Your task to perform on an android device: turn off improve location accuracy Image 0: 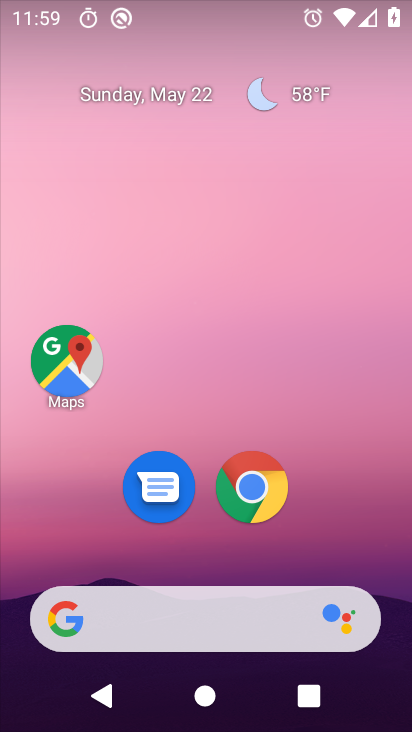
Step 0: drag from (386, 503) to (297, 99)
Your task to perform on an android device: turn off improve location accuracy Image 1: 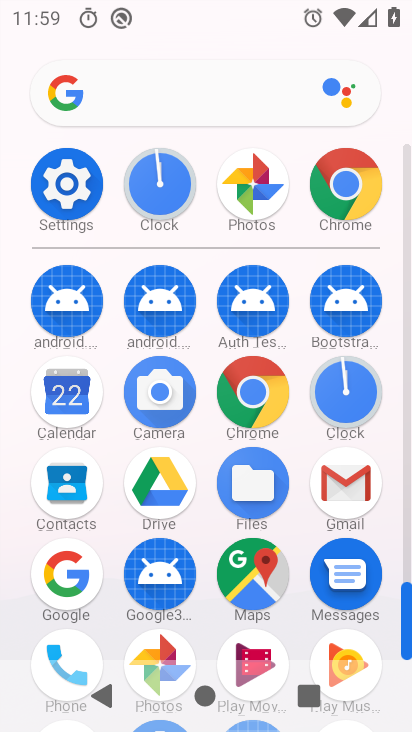
Step 1: click (57, 190)
Your task to perform on an android device: turn off improve location accuracy Image 2: 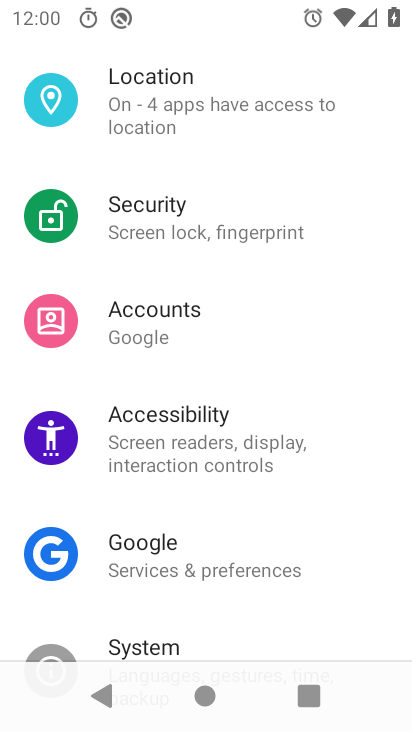
Step 2: drag from (148, 134) to (189, 480)
Your task to perform on an android device: turn off improve location accuracy Image 3: 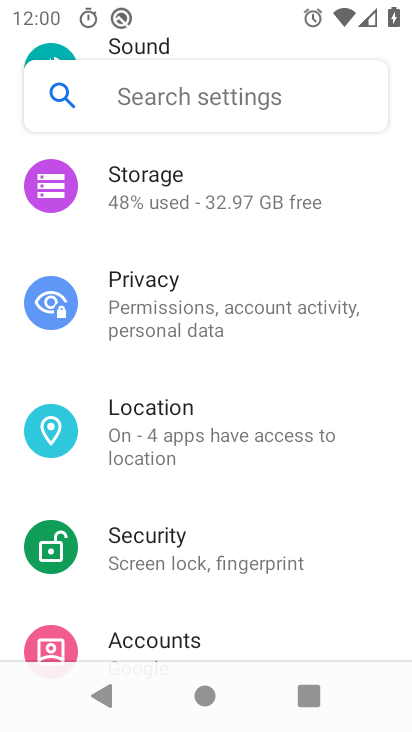
Step 3: drag from (171, 225) to (171, 554)
Your task to perform on an android device: turn off improve location accuracy Image 4: 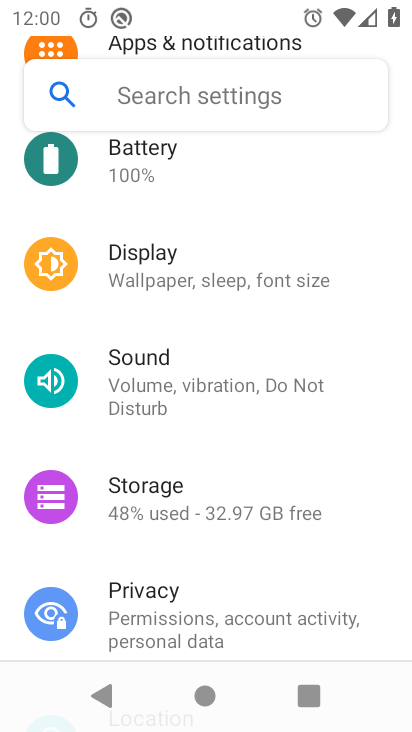
Step 4: drag from (162, 228) to (224, 548)
Your task to perform on an android device: turn off improve location accuracy Image 5: 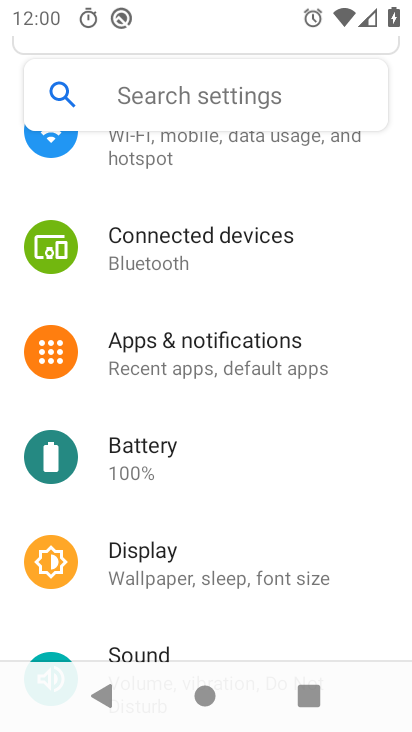
Step 5: drag from (215, 614) to (253, 263)
Your task to perform on an android device: turn off improve location accuracy Image 6: 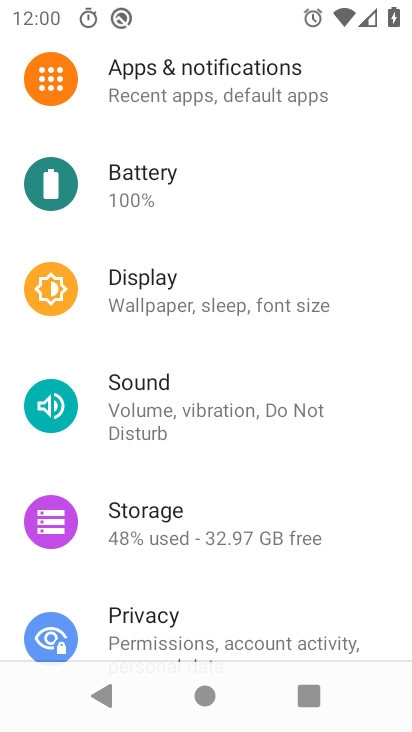
Step 6: drag from (186, 499) to (228, 221)
Your task to perform on an android device: turn off improve location accuracy Image 7: 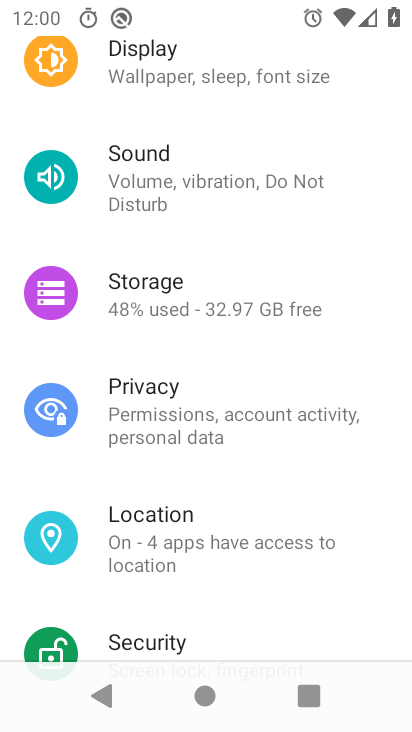
Step 7: click (198, 534)
Your task to perform on an android device: turn off improve location accuracy Image 8: 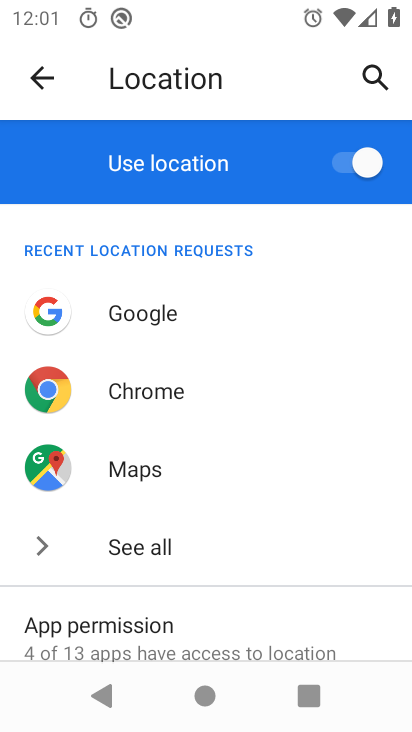
Step 8: drag from (203, 573) to (217, 314)
Your task to perform on an android device: turn off improve location accuracy Image 9: 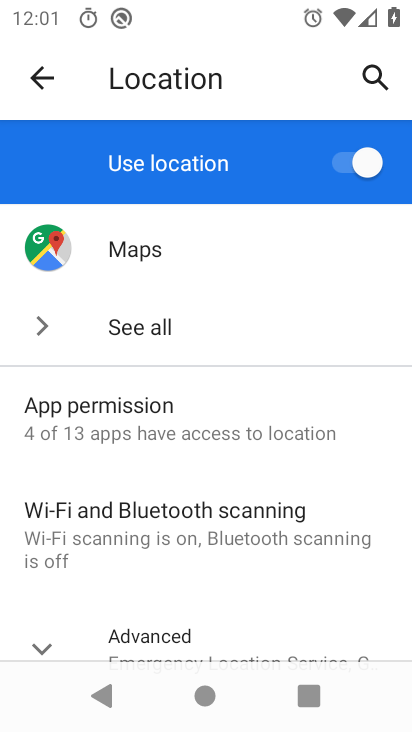
Step 9: drag from (248, 585) to (247, 328)
Your task to perform on an android device: turn off improve location accuracy Image 10: 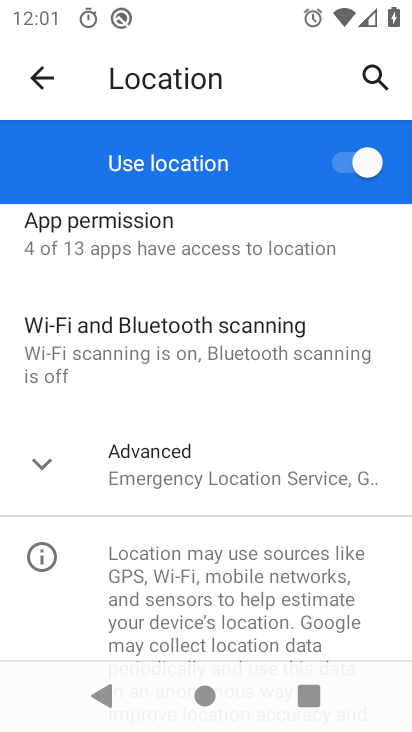
Step 10: click (217, 487)
Your task to perform on an android device: turn off improve location accuracy Image 11: 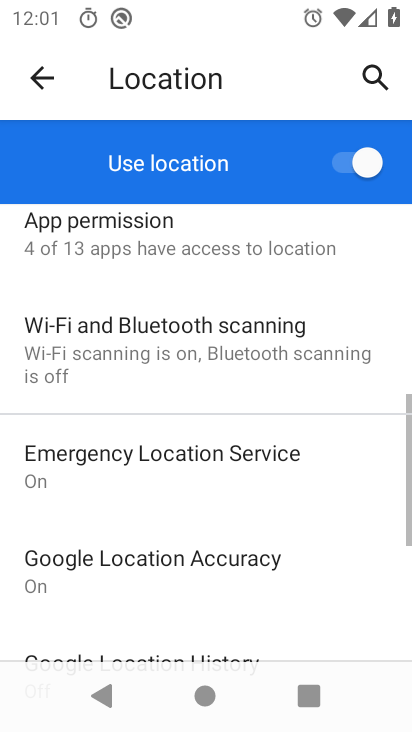
Step 11: drag from (214, 641) to (219, 416)
Your task to perform on an android device: turn off improve location accuracy Image 12: 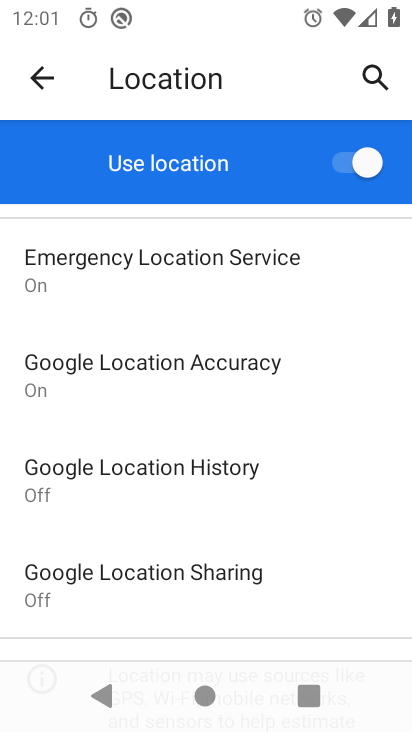
Step 12: click (197, 353)
Your task to perform on an android device: turn off improve location accuracy Image 13: 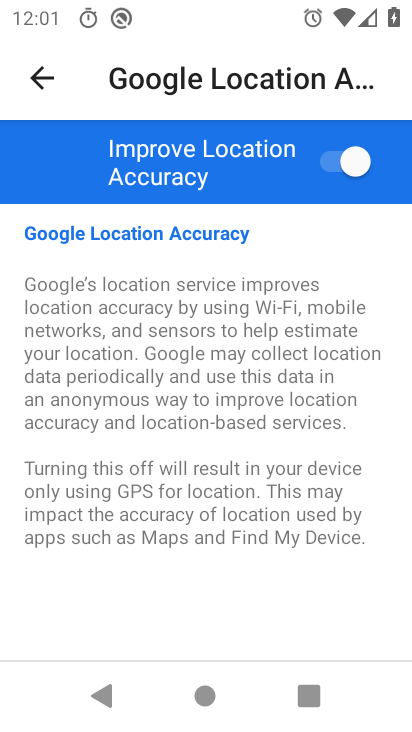
Step 13: drag from (238, 583) to (221, 233)
Your task to perform on an android device: turn off improve location accuracy Image 14: 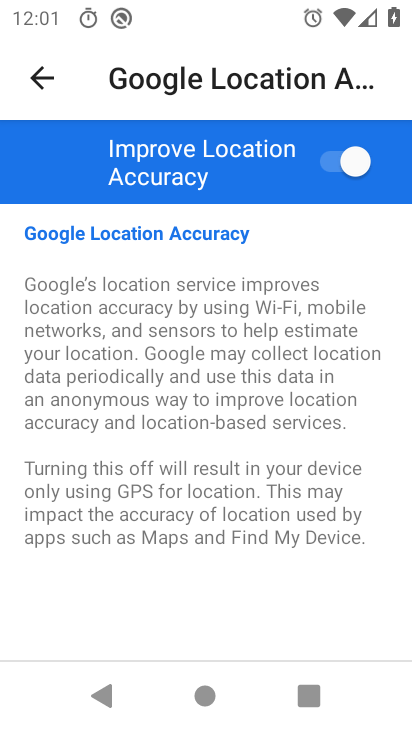
Step 14: click (328, 159)
Your task to perform on an android device: turn off improve location accuracy Image 15: 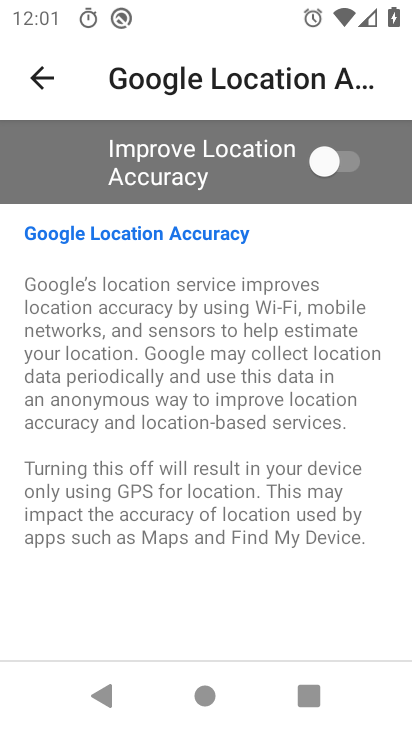
Step 15: task complete